Your task to perform on an android device: Empty the shopping cart on bestbuy.com. Search for "alienware area 51" on bestbuy.com, select the first entry, add it to the cart, then select checkout. Image 0: 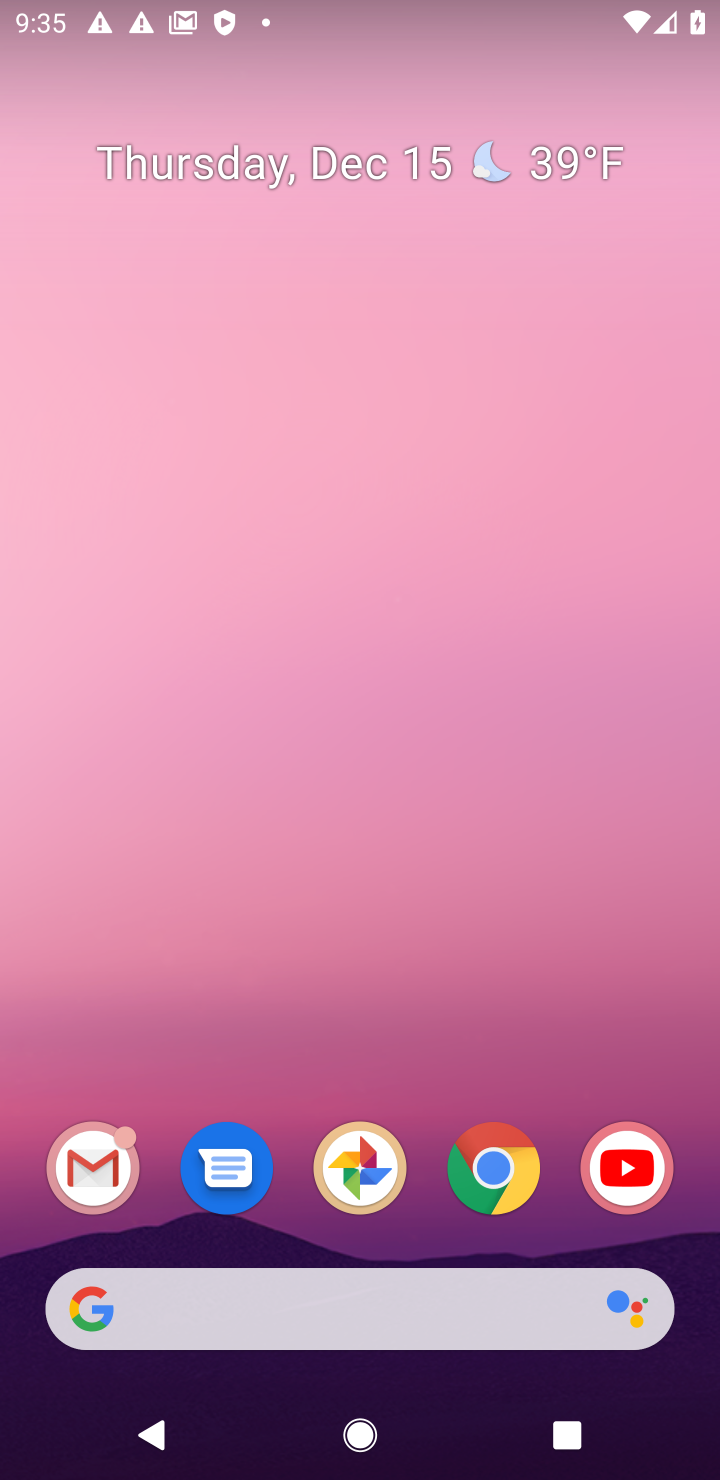
Step 0: click (479, 1135)
Your task to perform on an android device: Empty the shopping cart on bestbuy.com. Search for "alienware area 51" on bestbuy.com, select the first entry, add it to the cart, then select checkout. Image 1: 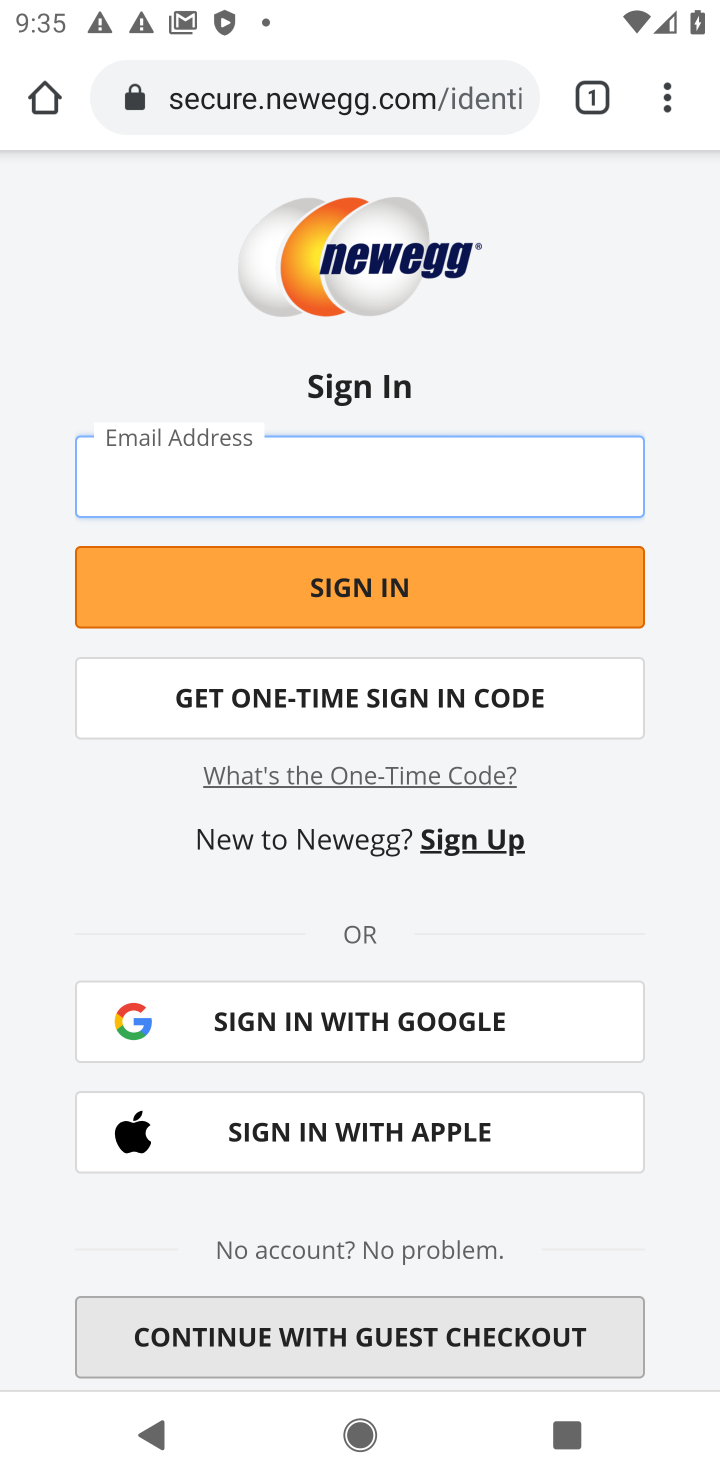
Step 1: click (397, 90)
Your task to perform on an android device: Empty the shopping cart on bestbuy.com. Search for "alienware area 51" on bestbuy.com, select the first entry, add it to the cart, then select checkout. Image 2: 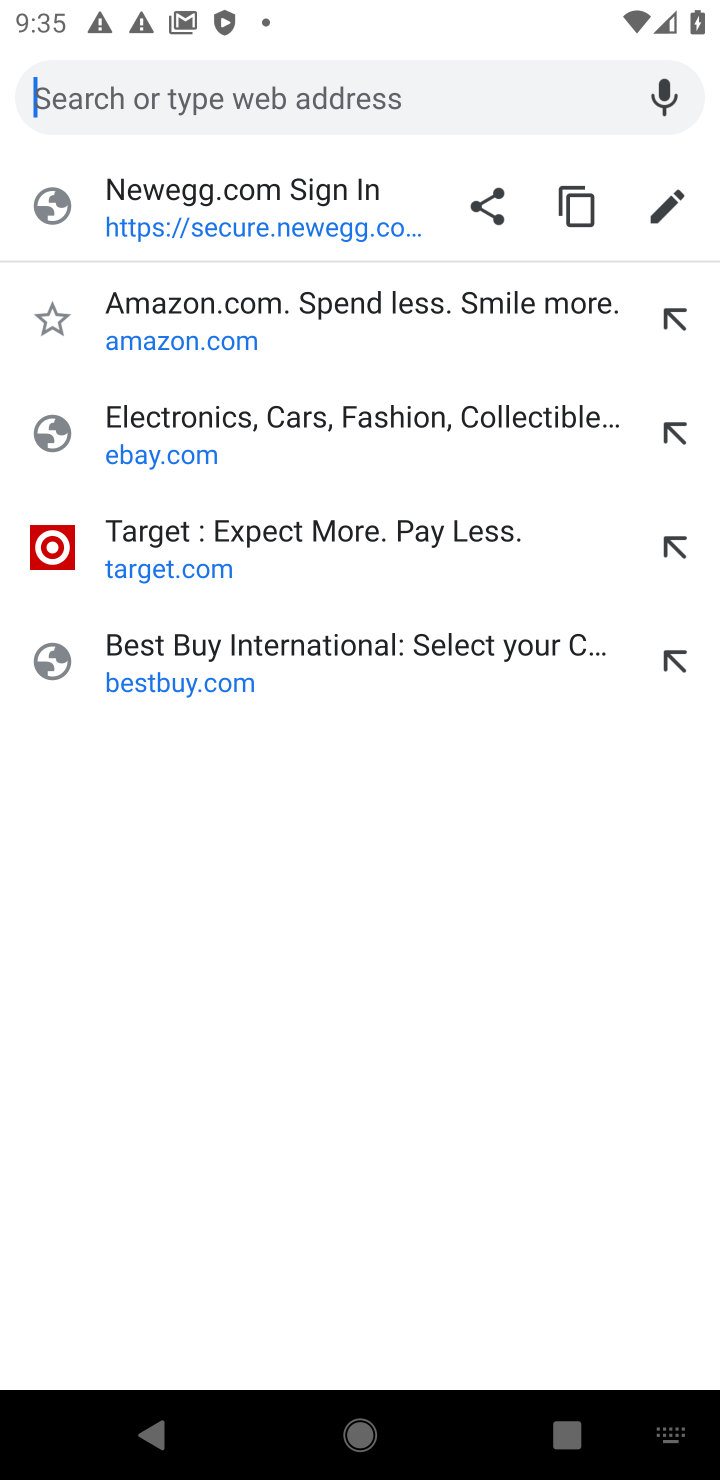
Step 2: click (418, 675)
Your task to perform on an android device: Empty the shopping cart on bestbuy.com. Search for "alienware area 51" on bestbuy.com, select the first entry, add it to the cart, then select checkout. Image 3: 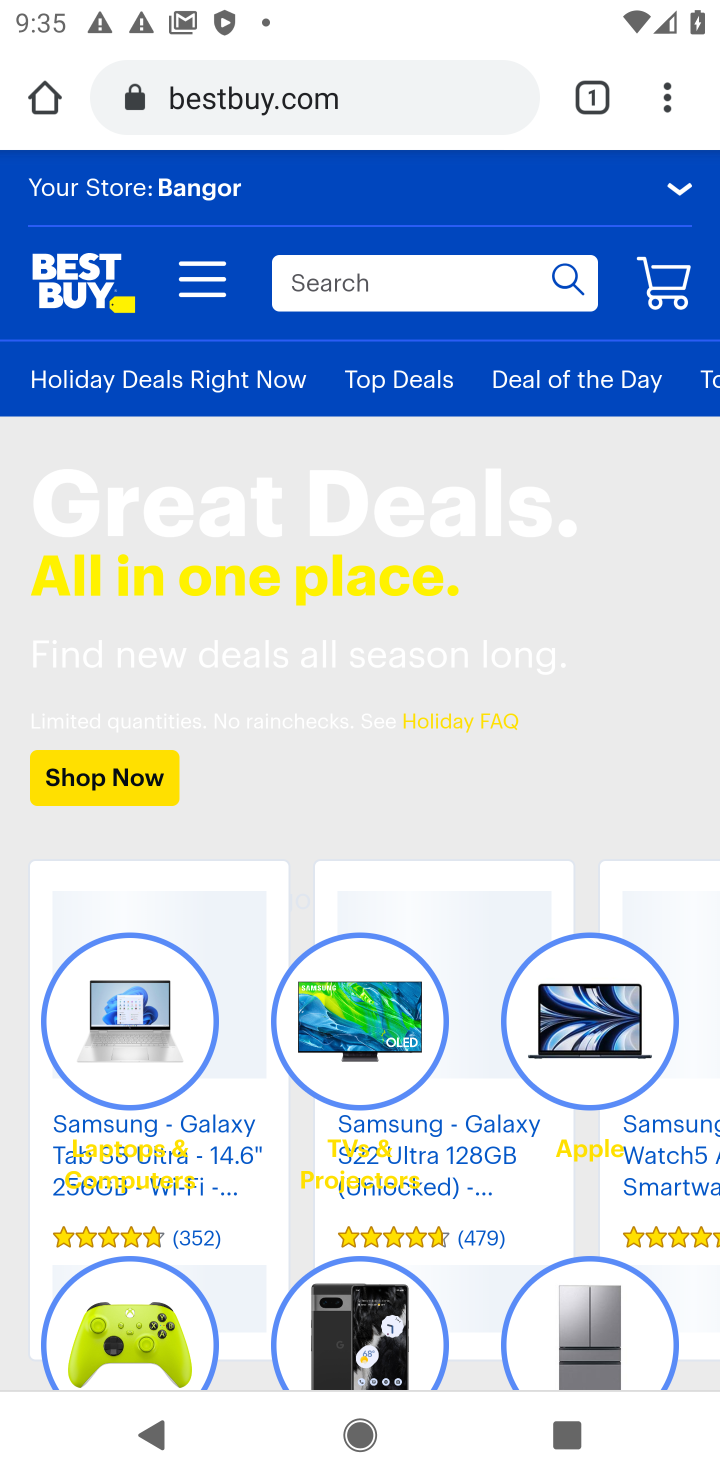
Step 3: click (667, 281)
Your task to perform on an android device: Empty the shopping cart on bestbuy.com. Search for "alienware area 51" on bestbuy.com, select the first entry, add it to the cart, then select checkout. Image 4: 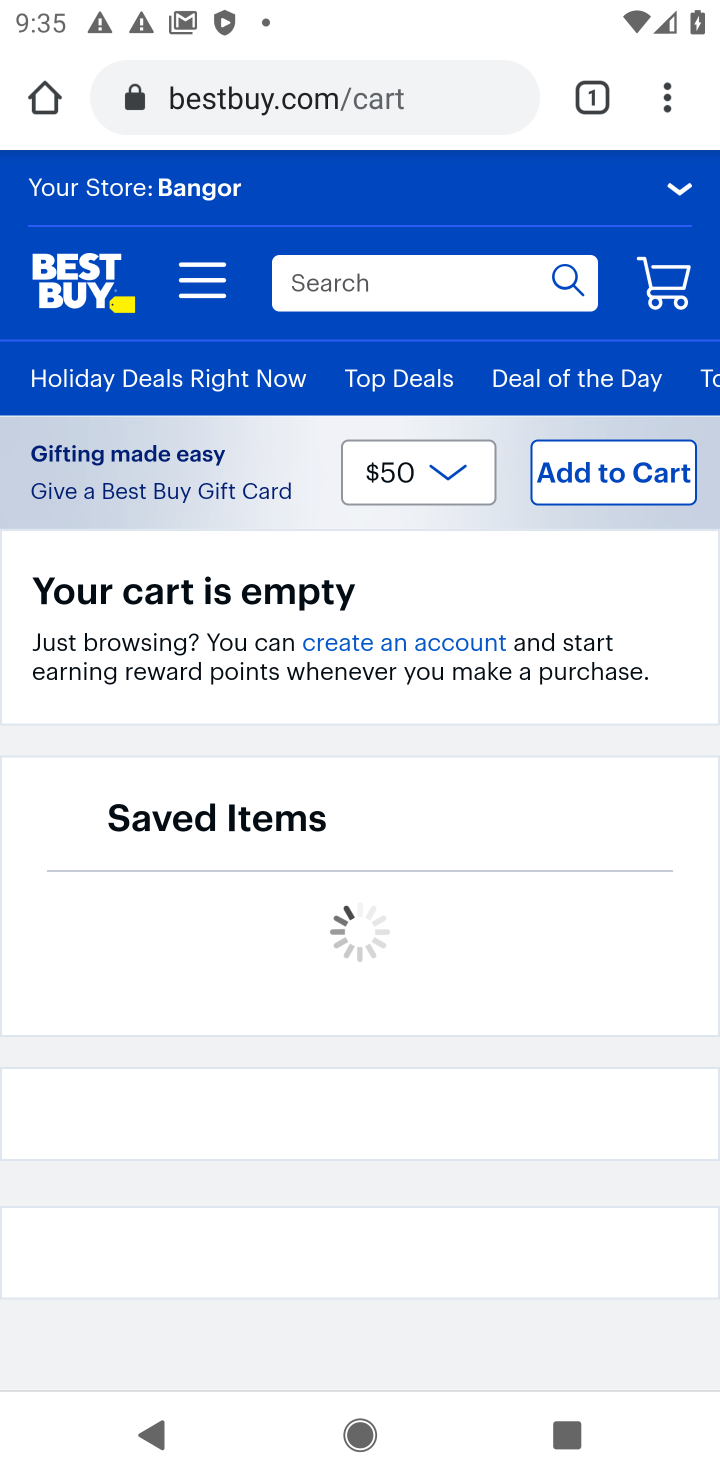
Step 4: click (408, 291)
Your task to perform on an android device: Empty the shopping cart on bestbuy.com. Search for "alienware area 51" on bestbuy.com, select the first entry, add it to the cart, then select checkout. Image 5: 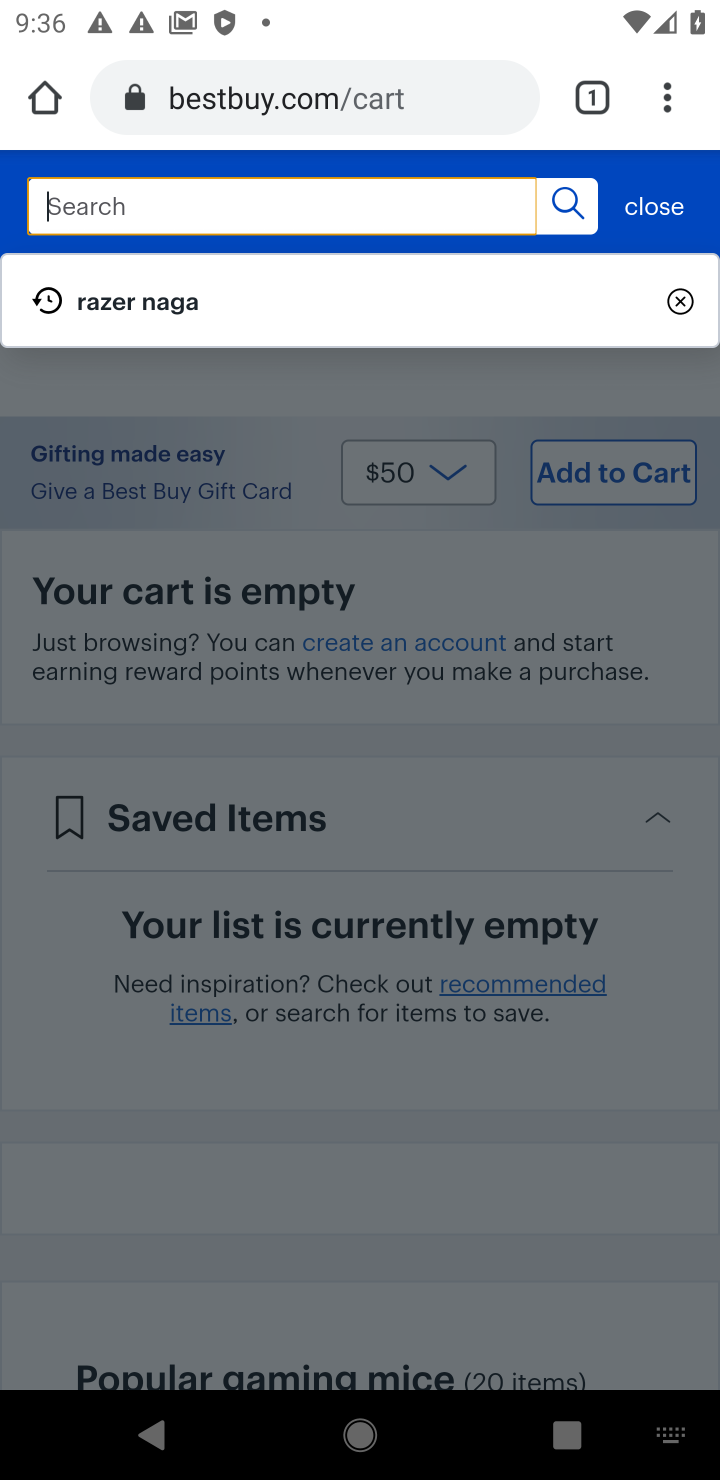
Step 5: type "alienware area 51"
Your task to perform on an android device: Empty the shopping cart on bestbuy.com. Search for "alienware area 51" on bestbuy.com, select the first entry, add it to the cart, then select checkout. Image 6: 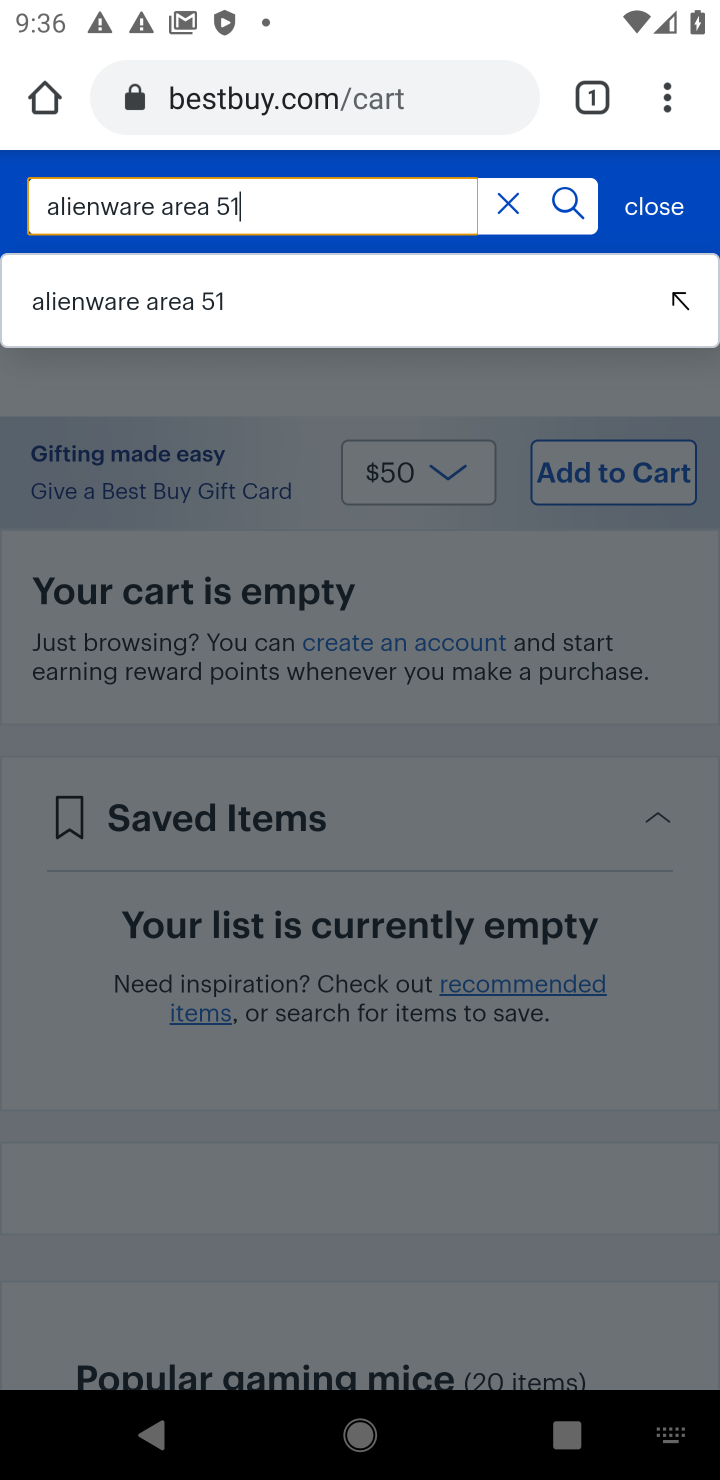
Step 6: click (164, 295)
Your task to perform on an android device: Empty the shopping cart on bestbuy.com. Search for "alienware area 51" on bestbuy.com, select the first entry, add it to the cart, then select checkout. Image 7: 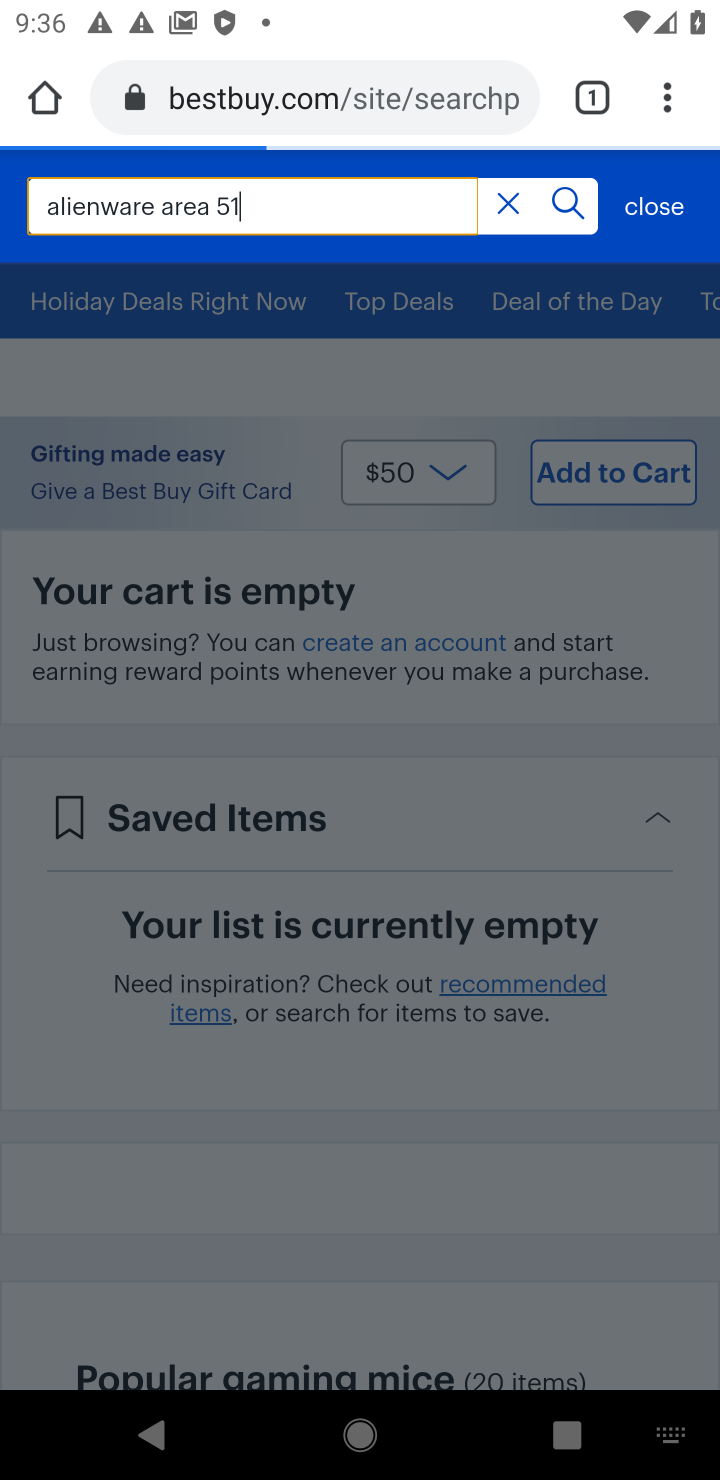
Step 7: click (558, 197)
Your task to perform on an android device: Empty the shopping cart on bestbuy.com. Search for "alienware area 51" on bestbuy.com, select the first entry, add it to the cart, then select checkout. Image 8: 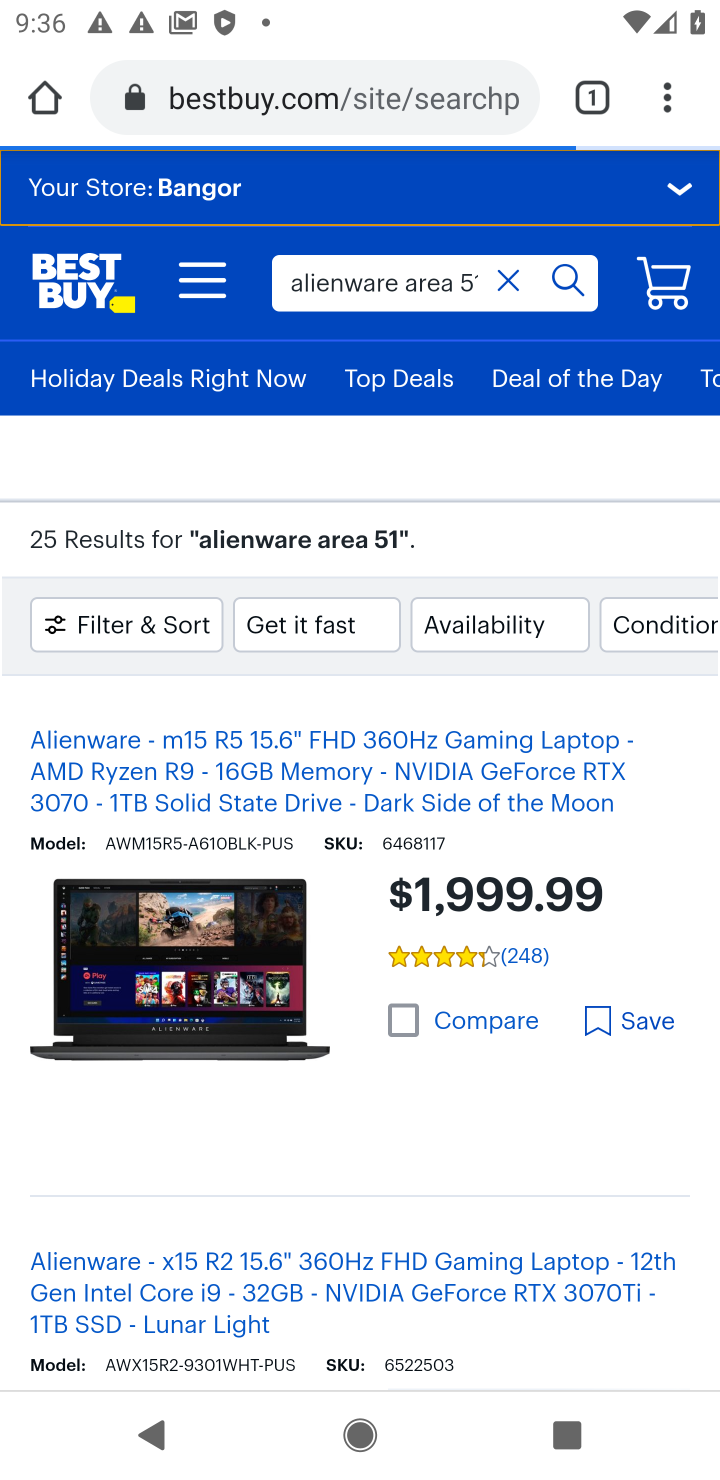
Step 8: click (598, 819)
Your task to perform on an android device: Empty the shopping cart on bestbuy.com. Search for "alienware area 51" on bestbuy.com, select the first entry, add it to the cart, then select checkout. Image 9: 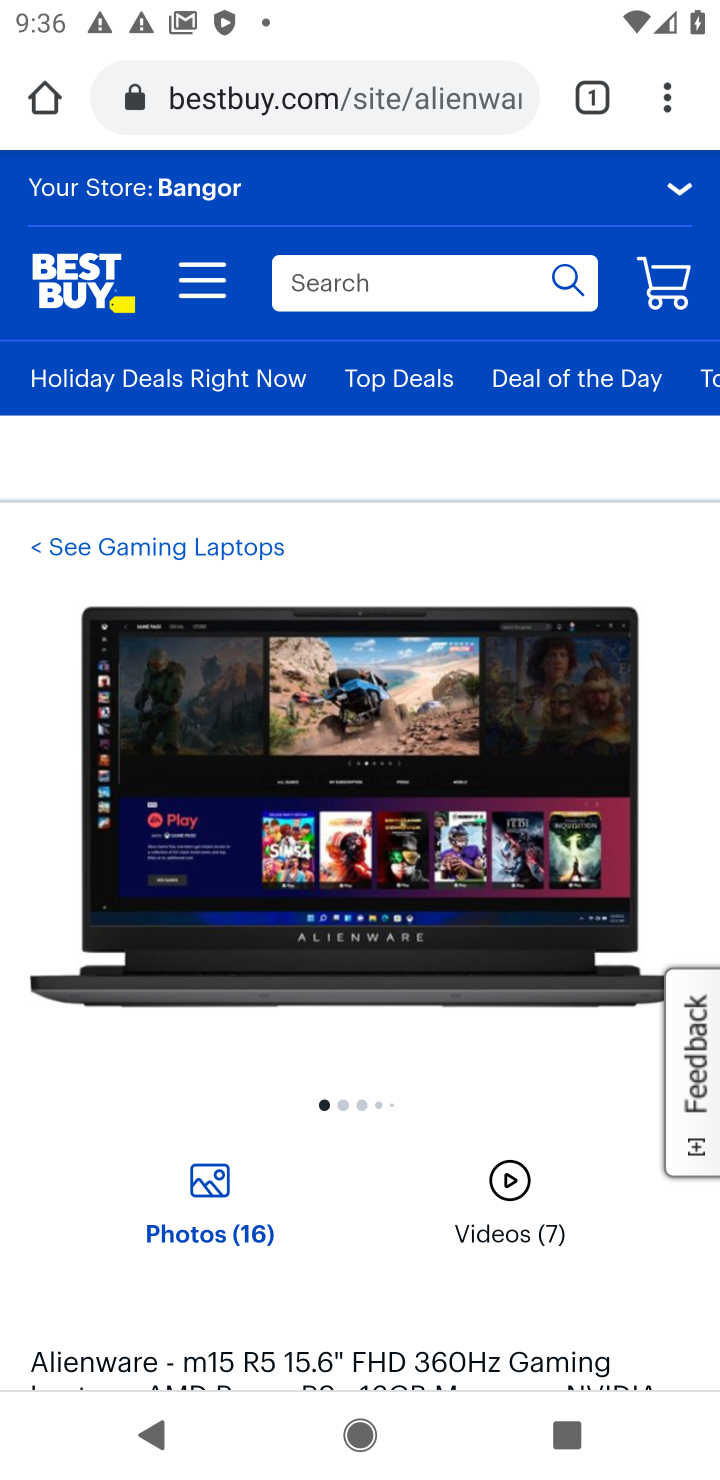
Step 9: drag from (534, 1095) to (404, 256)
Your task to perform on an android device: Empty the shopping cart on bestbuy.com. Search for "alienware area 51" on bestbuy.com, select the first entry, add it to the cart, then select checkout. Image 10: 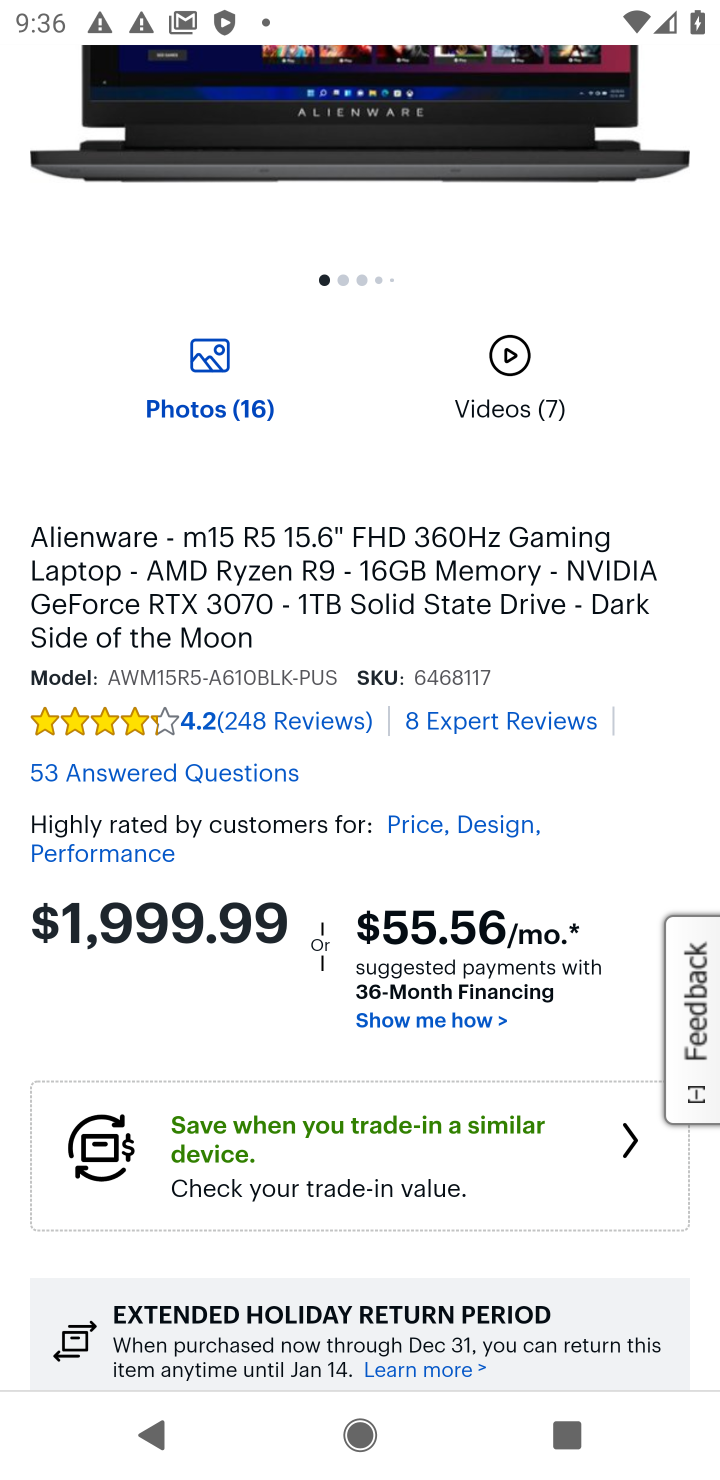
Step 10: drag from (496, 1310) to (391, 351)
Your task to perform on an android device: Empty the shopping cart on bestbuy.com. Search for "alienware area 51" on bestbuy.com, select the first entry, add it to the cart, then select checkout. Image 11: 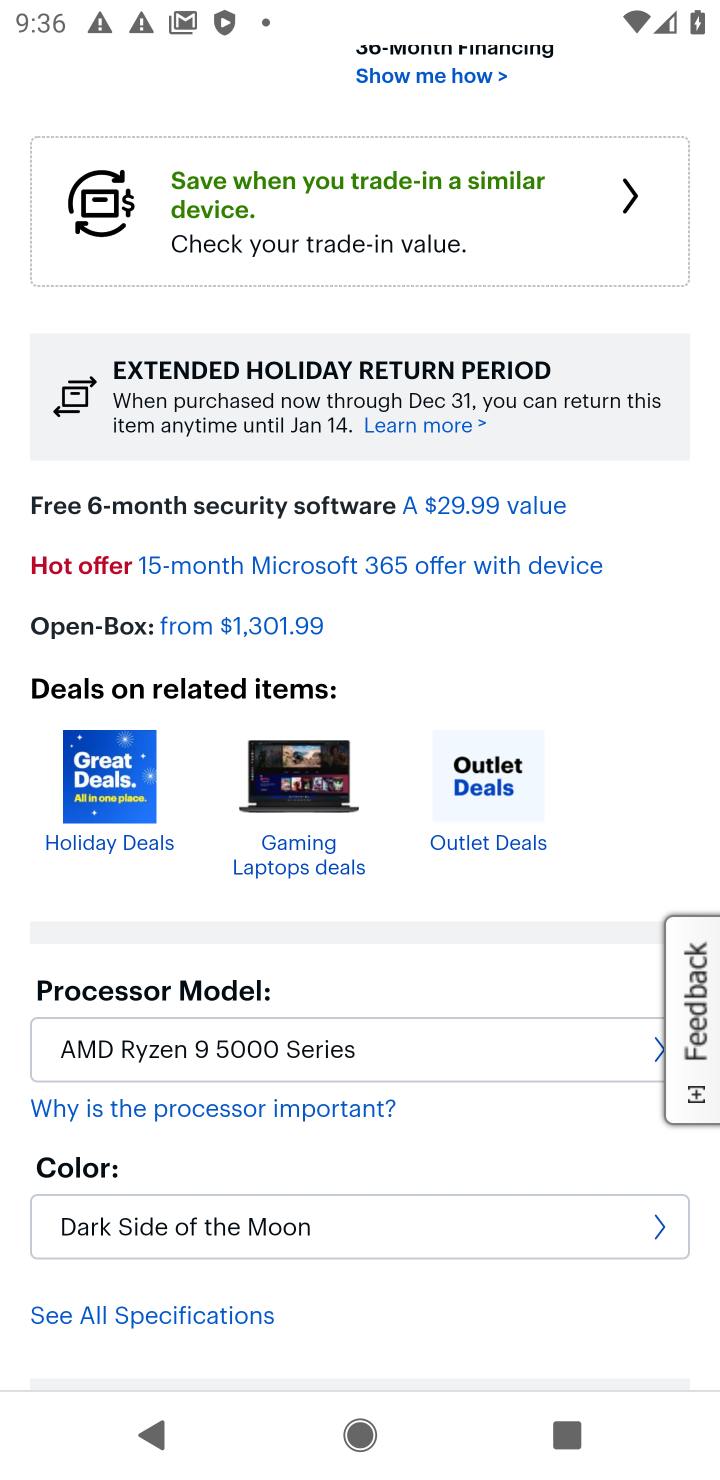
Step 11: drag from (455, 1243) to (429, 304)
Your task to perform on an android device: Empty the shopping cart on bestbuy.com. Search for "alienware area 51" on bestbuy.com, select the first entry, add it to the cart, then select checkout. Image 12: 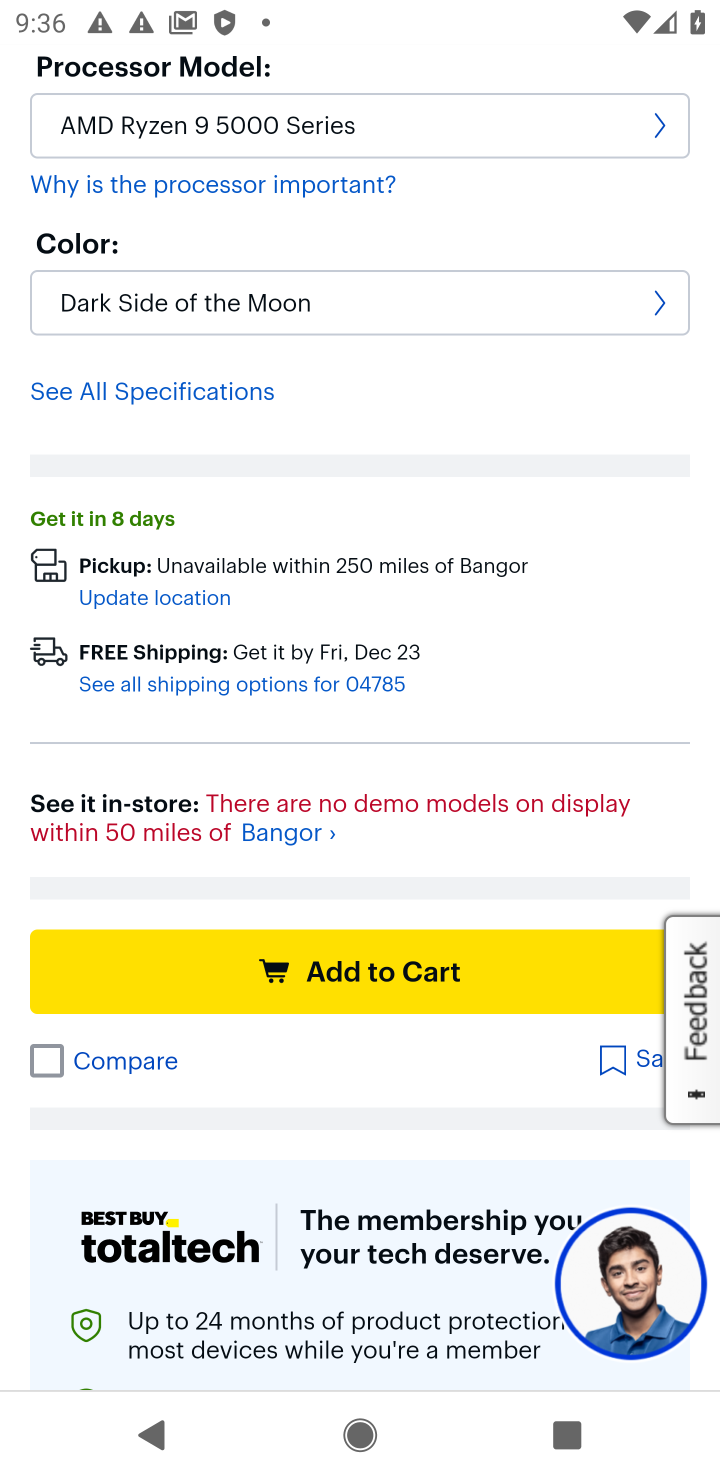
Step 12: click (416, 975)
Your task to perform on an android device: Empty the shopping cart on bestbuy.com. Search for "alienware area 51" on bestbuy.com, select the first entry, add it to the cart, then select checkout. Image 13: 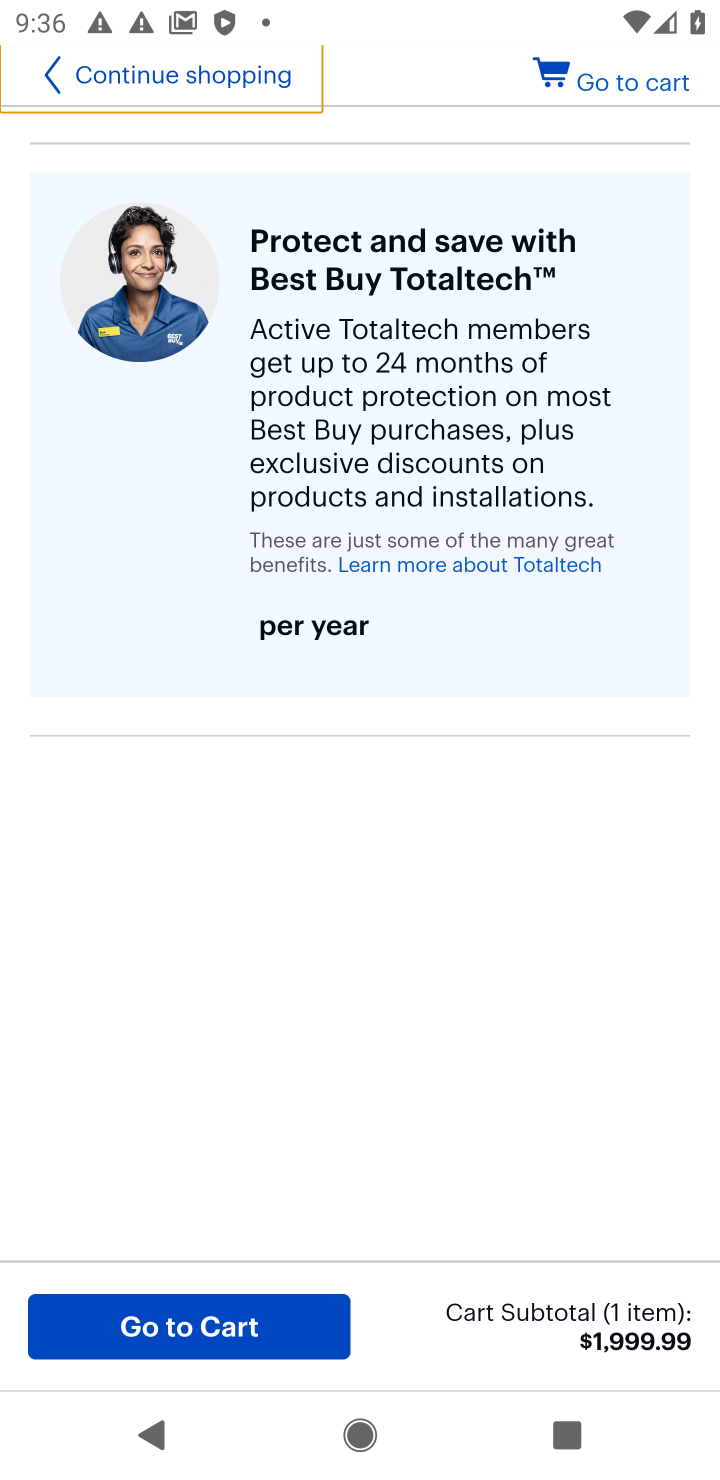
Step 13: click (214, 1314)
Your task to perform on an android device: Empty the shopping cart on bestbuy.com. Search for "alienware area 51" on bestbuy.com, select the first entry, add it to the cart, then select checkout. Image 14: 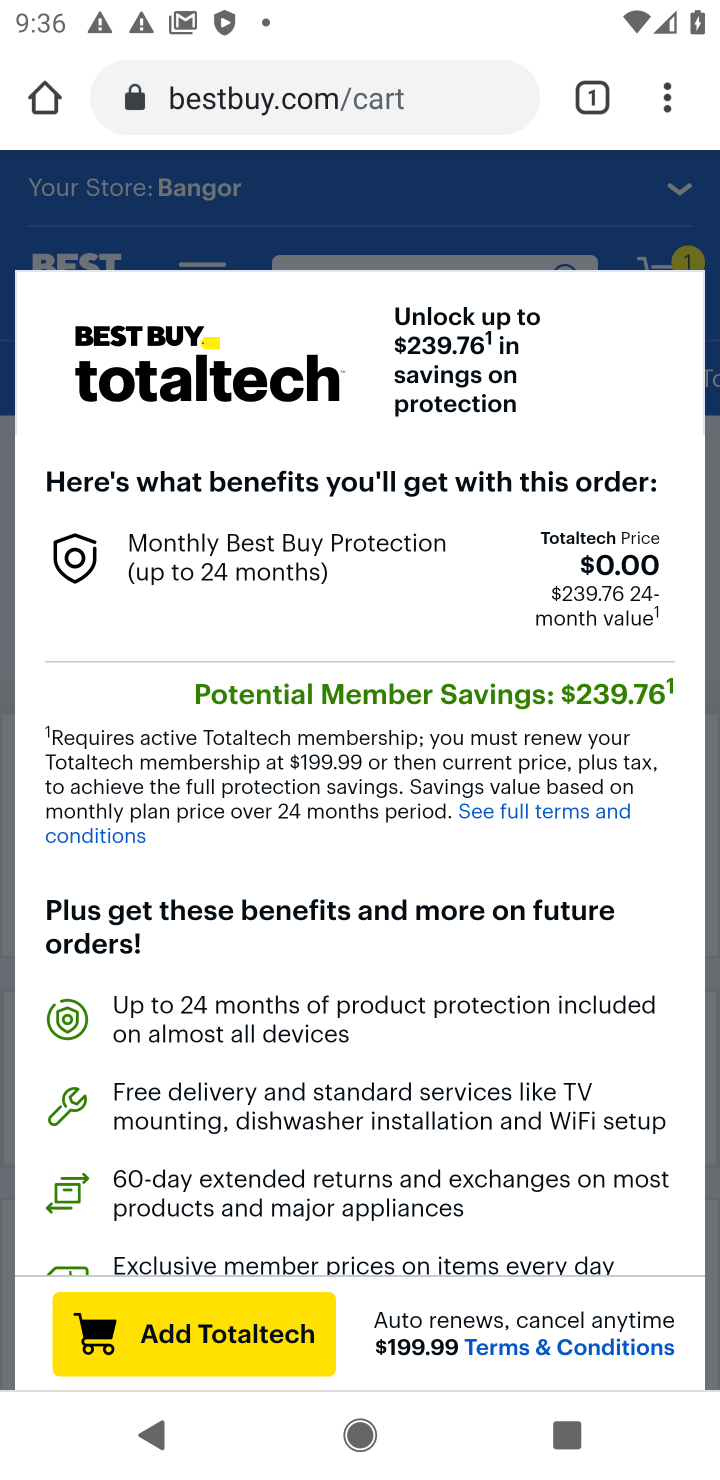
Step 14: click (532, 874)
Your task to perform on an android device: Empty the shopping cart on bestbuy.com. Search for "alienware area 51" on bestbuy.com, select the first entry, add it to the cart, then select checkout. Image 15: 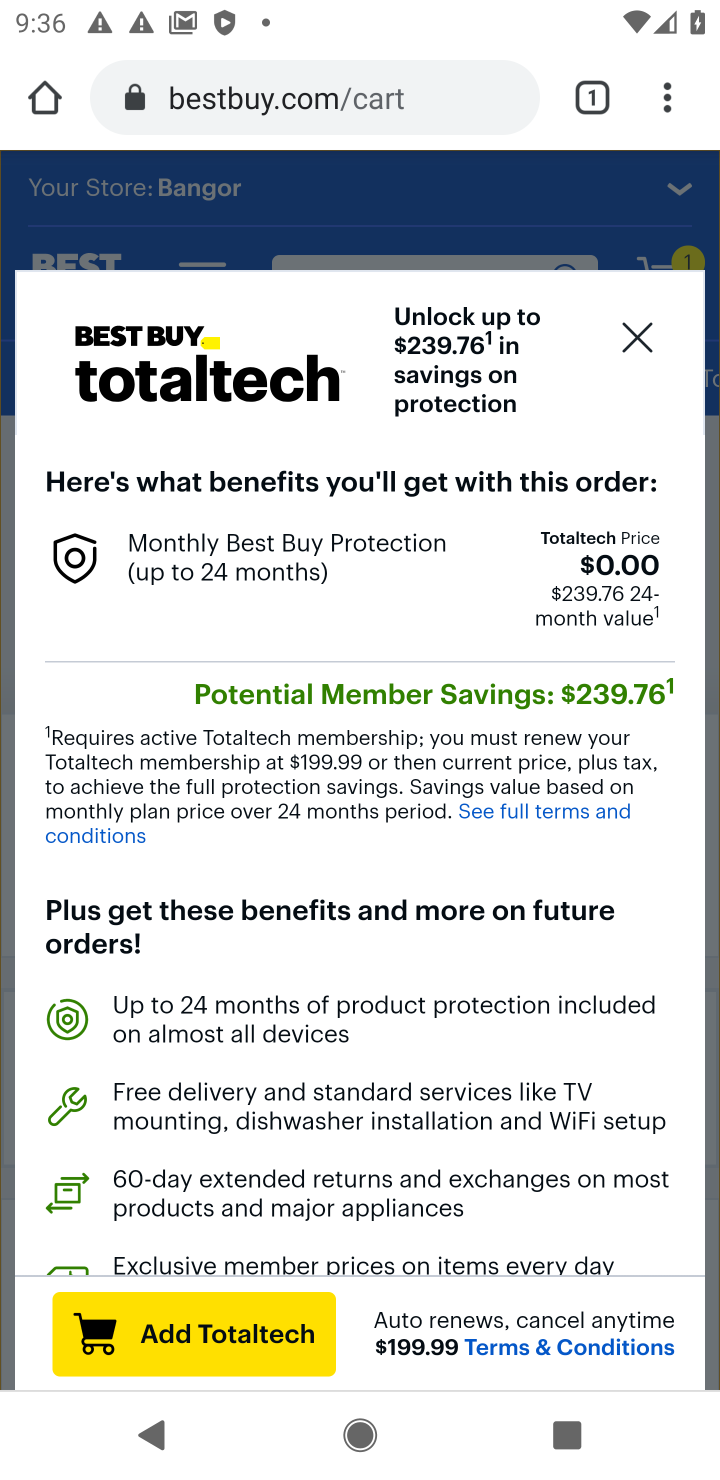
Step 15: click (634, 328)
Your task to perform on an android device: Empty the shopping cart on bestbuy.com. Search for "alienware area 51" on bestbuy.com, select the first entry, add it to the cart, then select checkout. Image 16: 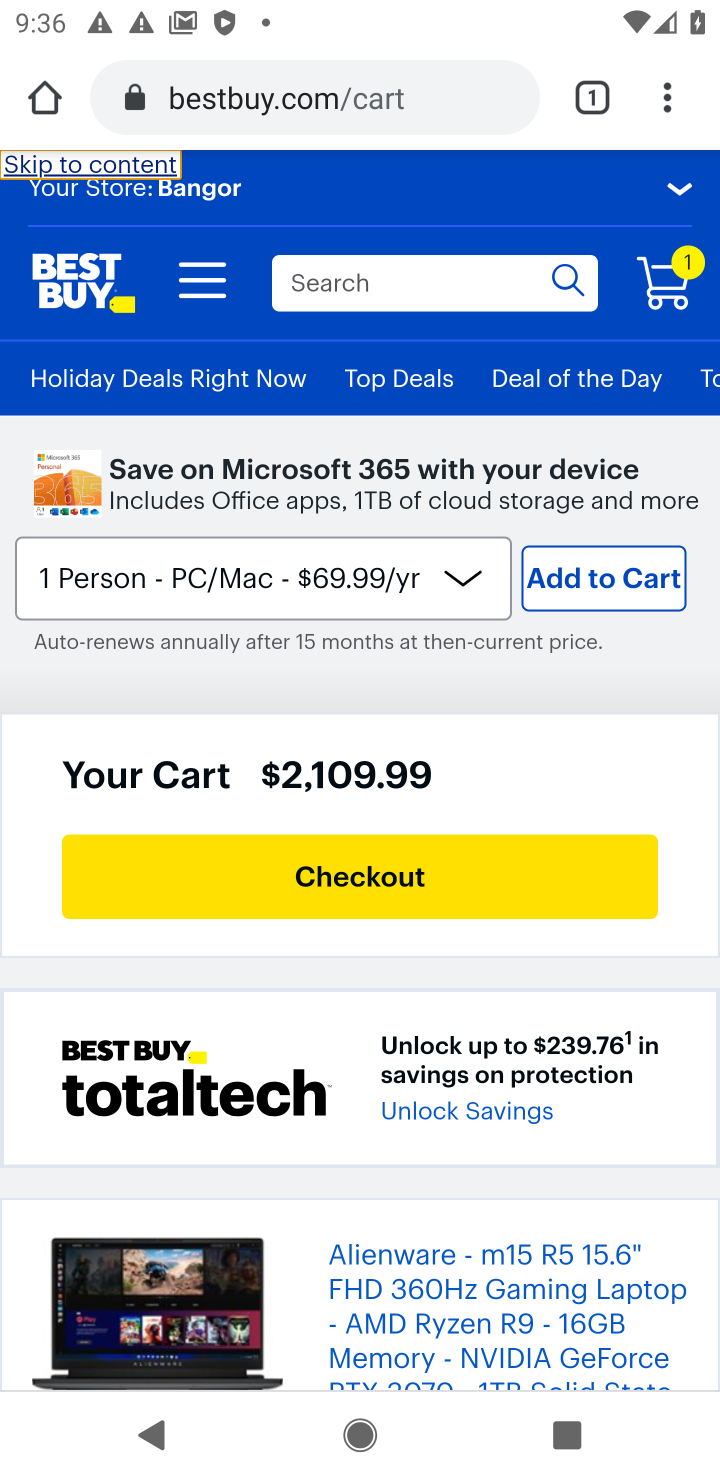
Step 16: click (438, 857)
Your task to perform on an android device: Empty the shopping cart on bestbuy.com. Search for "alienware area 51" on bestbuy.com, select the first entry, add it to the cart, then select checkout. Image 17: 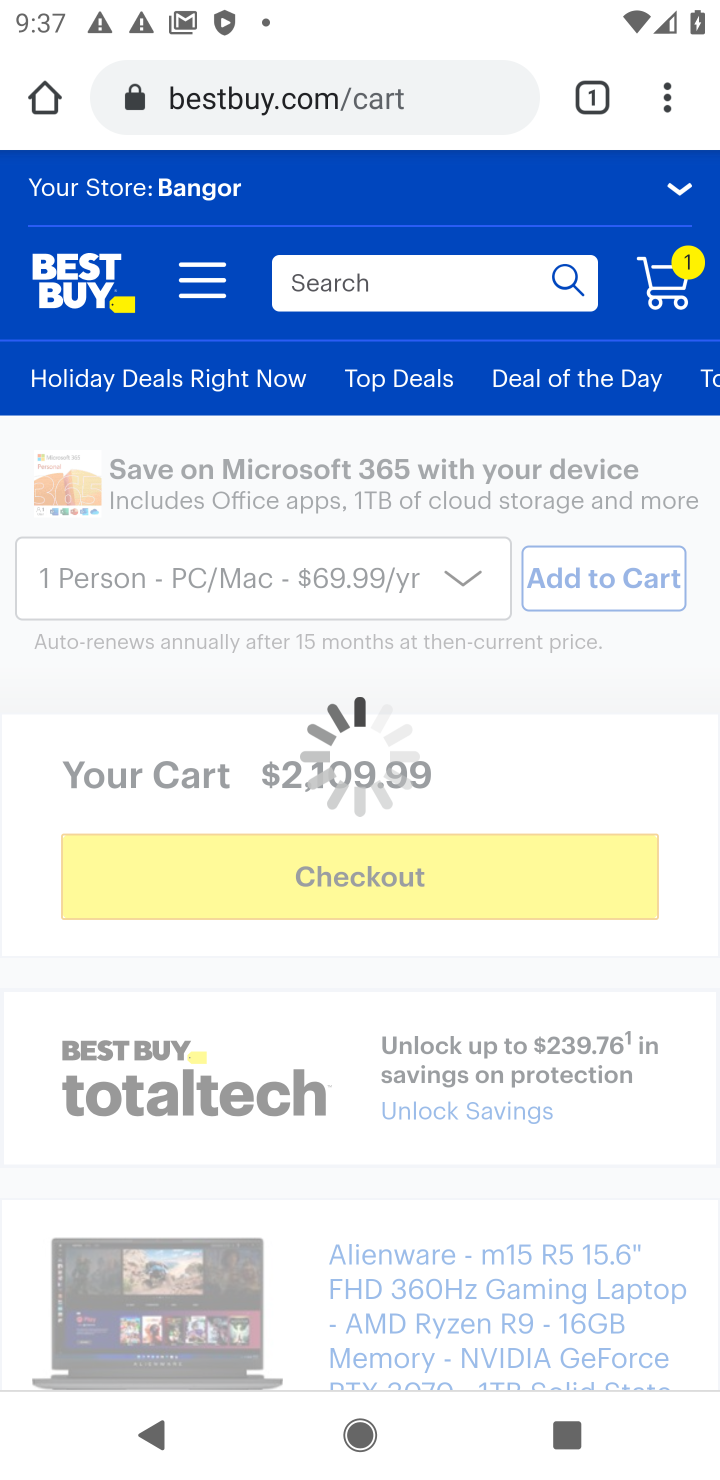
Step 17: task complete